Your task to perform on an android device: choose inbox layout in the gmail app Image 0: 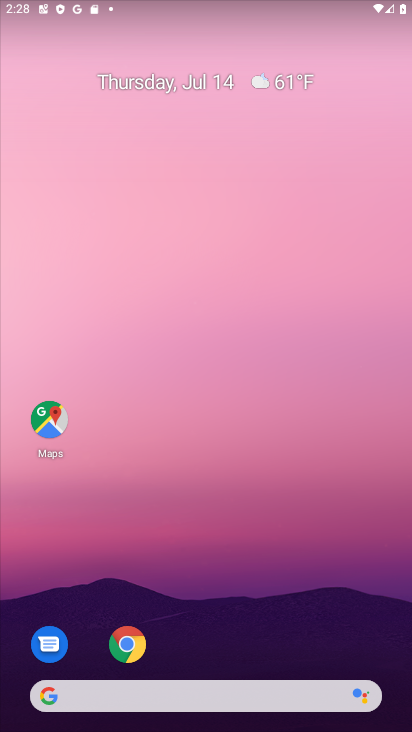
Step 0: drag from (216, 556) to (224, 97)
Your task to perform on an android device: choose inbox layout in the gmail app Image 1: 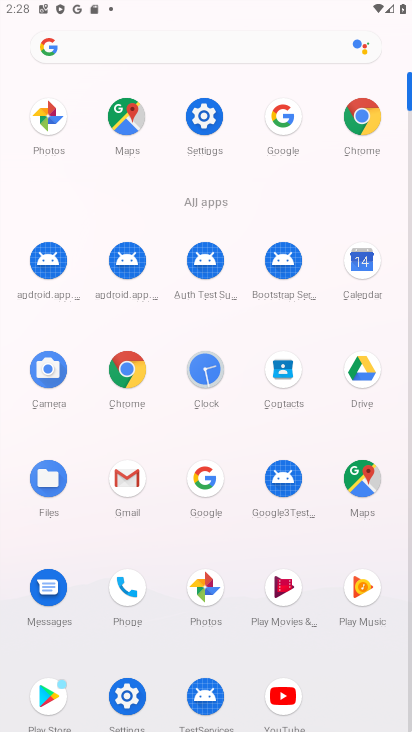
Step 1: click (136, 471)
Your task to perform on an android device: choose inbox layout in the gmail app Image 2: 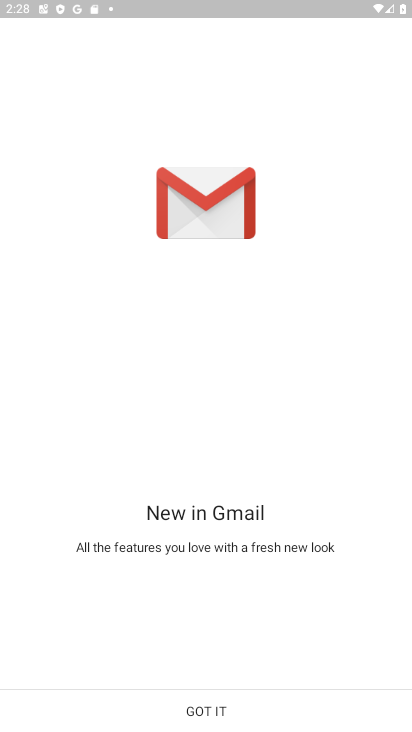
Step 2: click (196, 712)
Your task to perform on an android device: choose inbox layout in the gmail app Image 3: 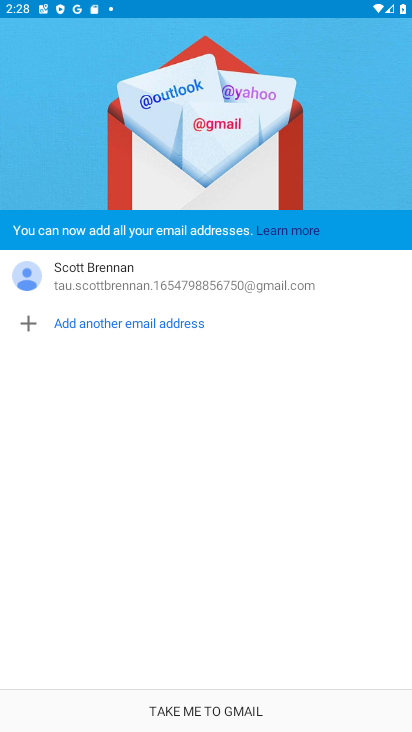
Step 3: click (197, 712)
Your task to perform on an android device: choose inbox layout in the gmail app Image 4: 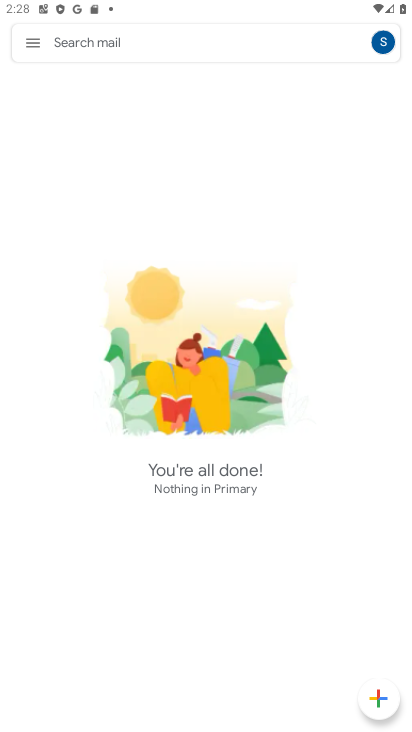
Step 4: click (38, 39)
Your task to perform on an android device: choose inbox layout in the gmail app Image 5: 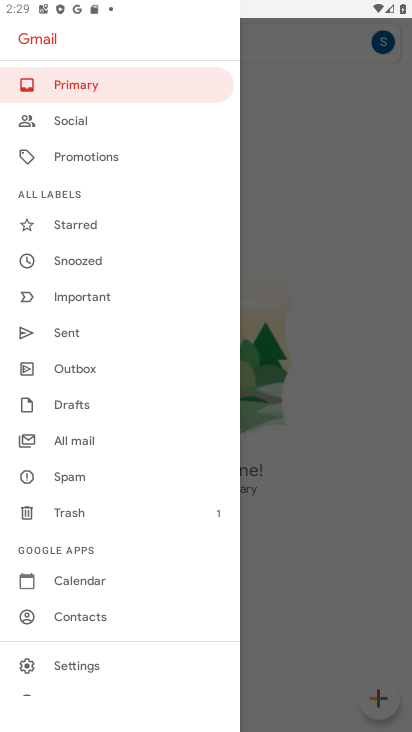
Step 5: click (92, 665)
Your task to perform on an android device: choose inbox layout in the gmail app Image 6: 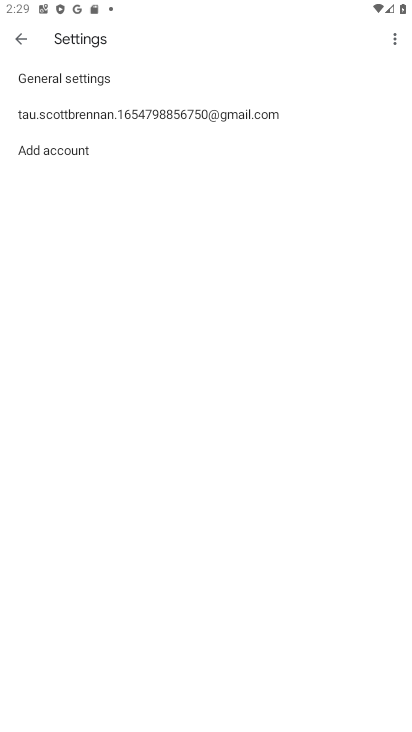
Step 6: click (79, 120)
Your task to perform on an android device: choose inbox layout in the gmail app Image 7: 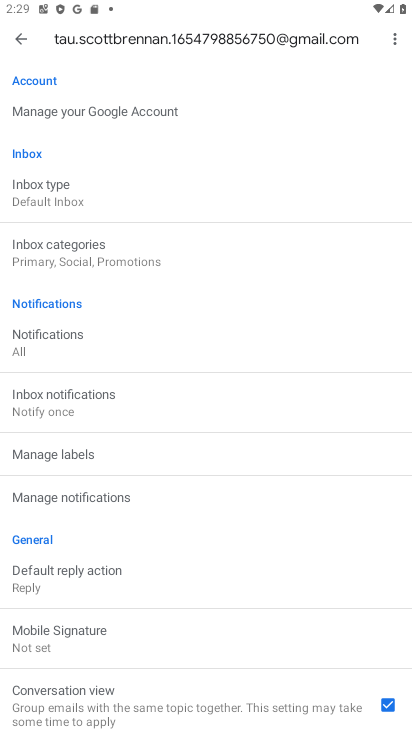
Step 7: click (53, 196)
Your task to perform on an android device: choose inbox layout in the gmail app Image 8: 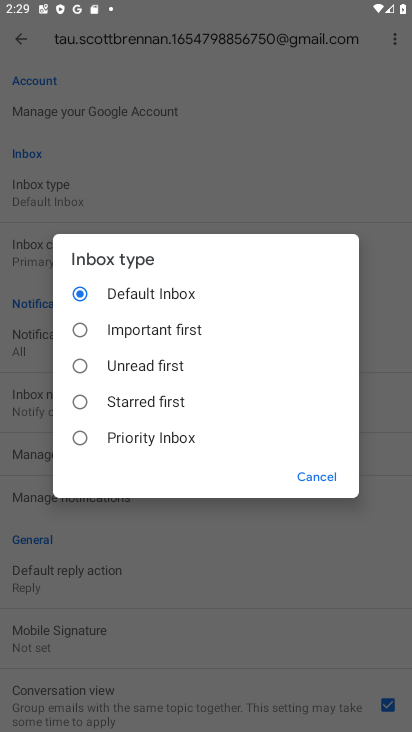
Step 8: click (77, 435)
Your task to perform on an android device: choose inbox layout in the gmail app Image 9: 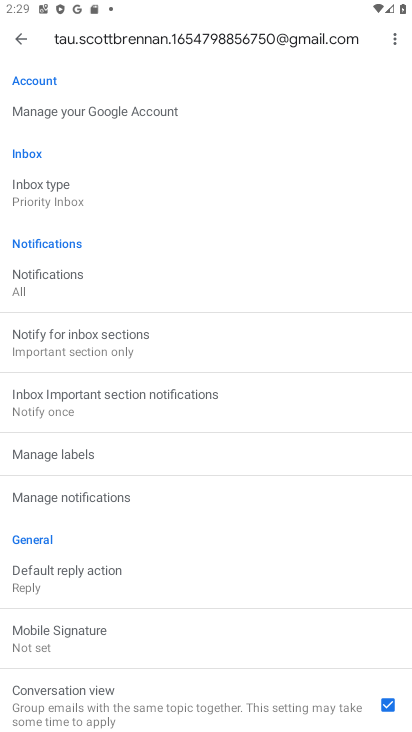
Step 9: task complete